Your task to perform on an android device: read, delete, or share a saved page in the chrome app Image 0: 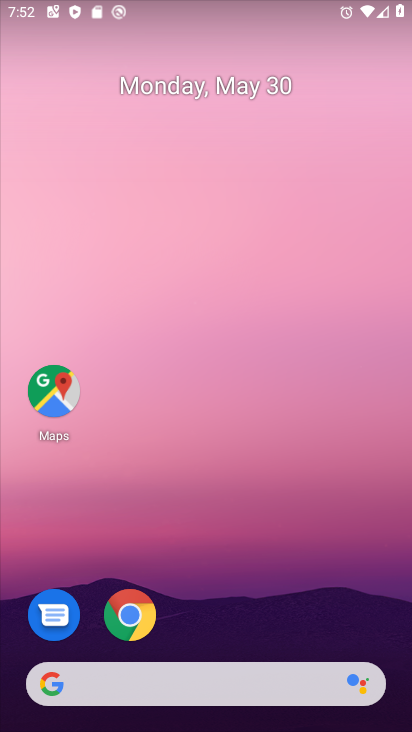
Step 0: drag from (337, 572) to (307, 54)
Your task to perform on an android device: read, delete, or share a saved page in the chrome app Image 1: 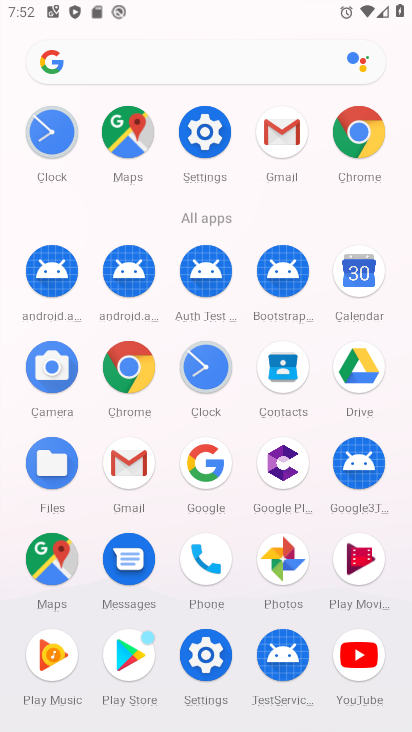
Step 1: click (360, 151)
Your task to perform on an android device: read, delete, or share a saved page in the chrome app Image 2: 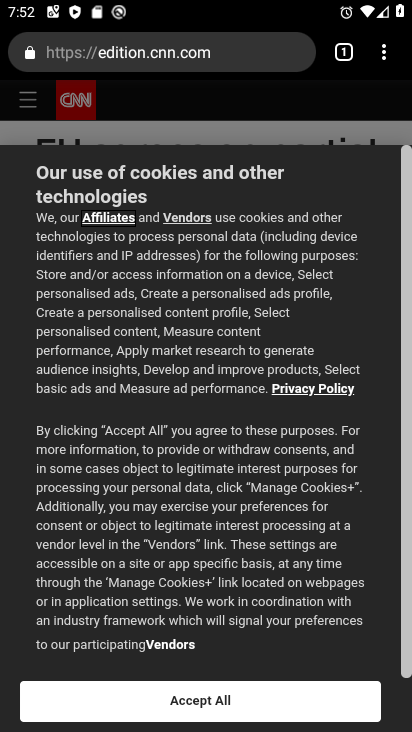
Step 2: task complete